Your task to perform on an android device: Add "lenovo thinkpad" to the cart on amazon.com, then select checkout. Image 0: 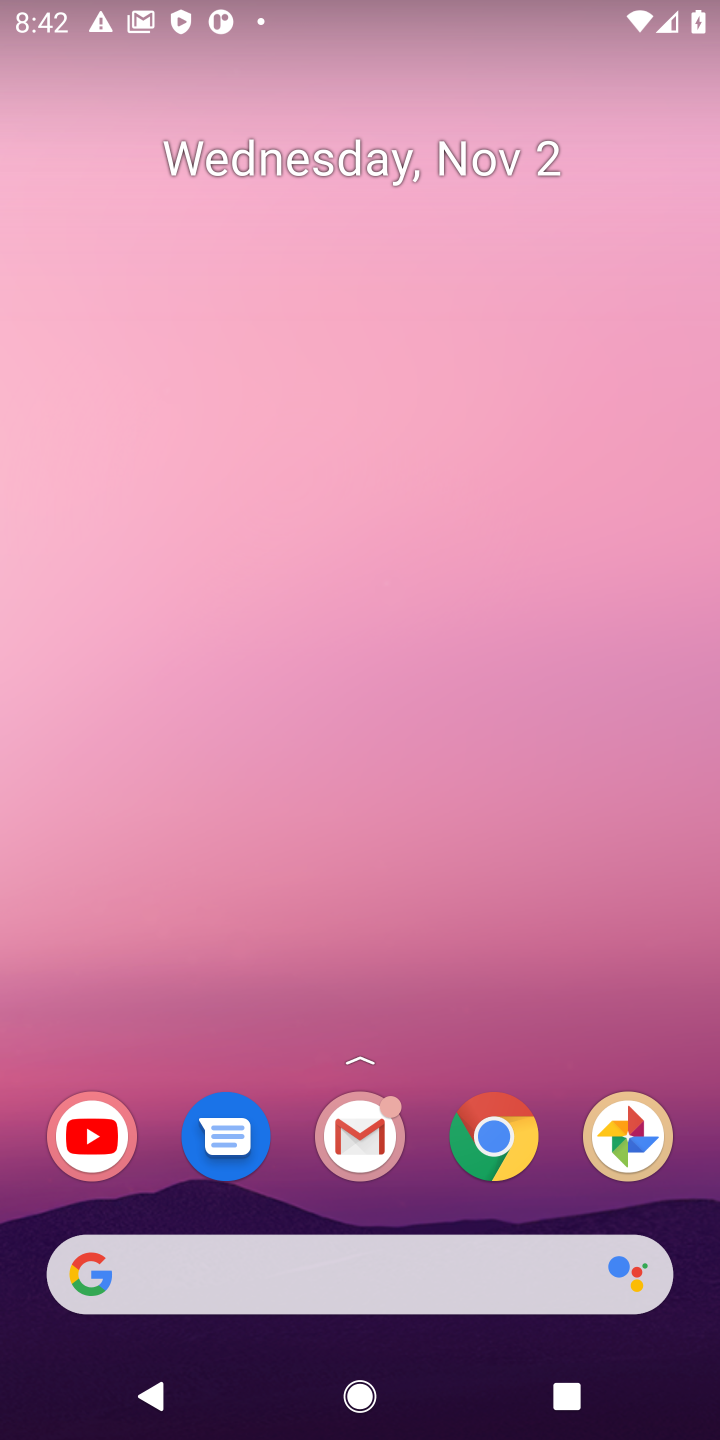
Step 0: drag from (292, 556) to (375, 30)
Your task to perform on an android device: Add "lenovo thinkpad" to the cart on amazon.com, then select checkout. Image 1: 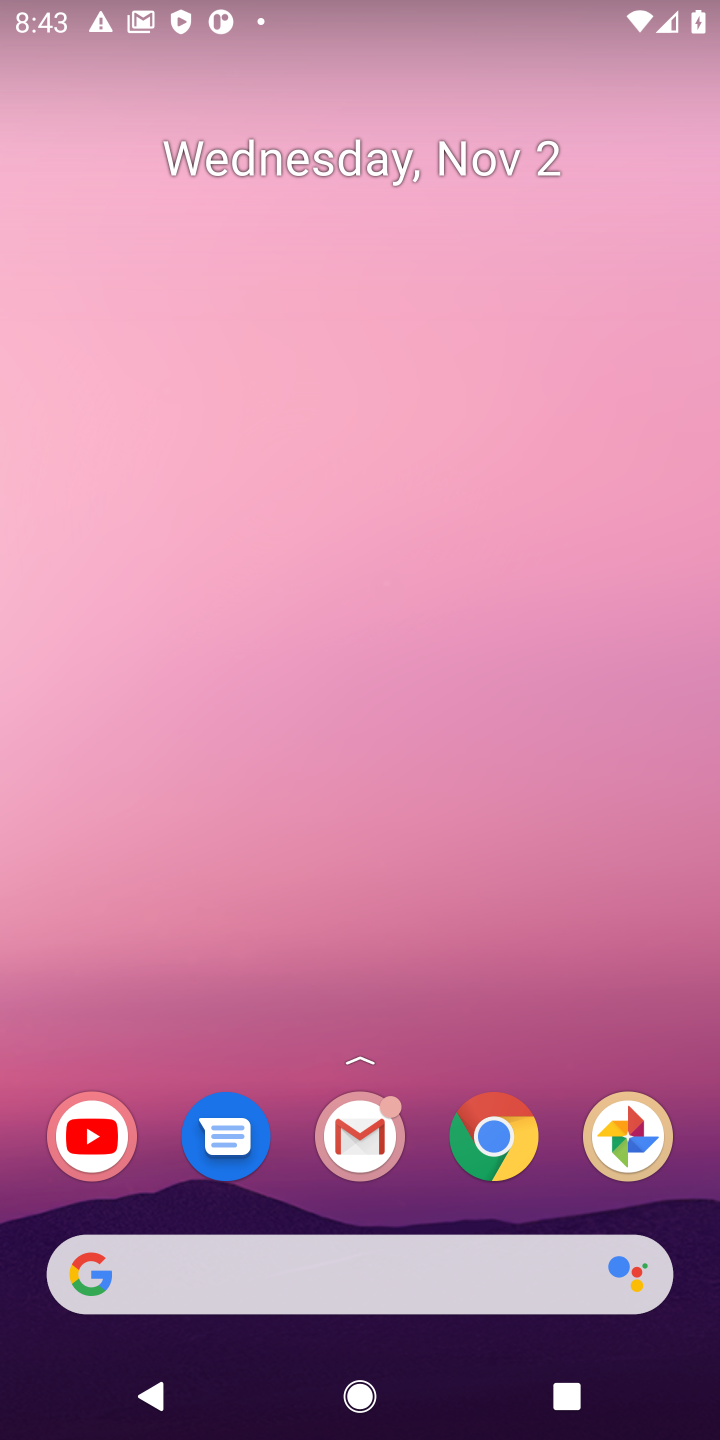
Step 1: drag from (439, 1130) to (420, 278)
Your task to perform on an android device: Add "lenovo thinkpad" to the cart on amazon.com, then select checkout. Image 2: 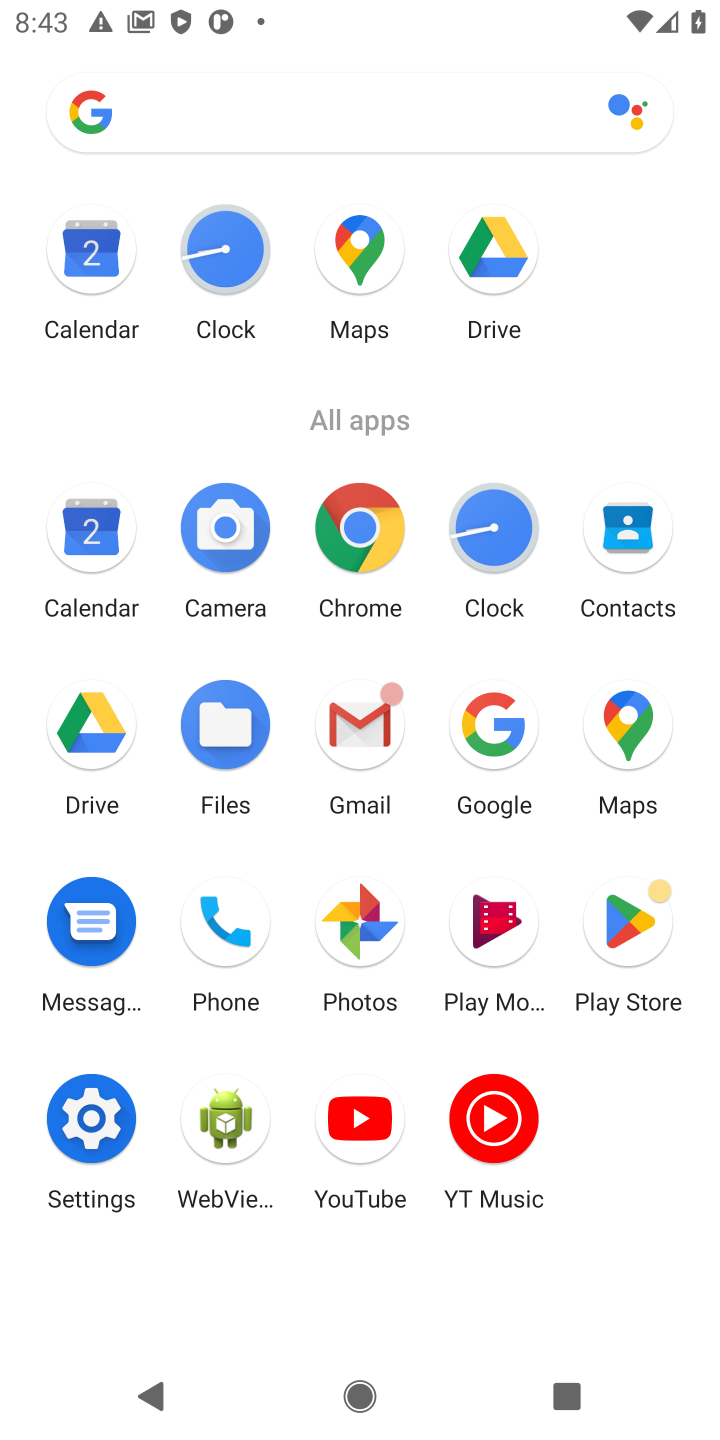
Step 2: click (473, 727)
Your task to perform on an android device: Add "lenovo thinkpad" to the cart on amazon.com, then select checkout. Image 3: 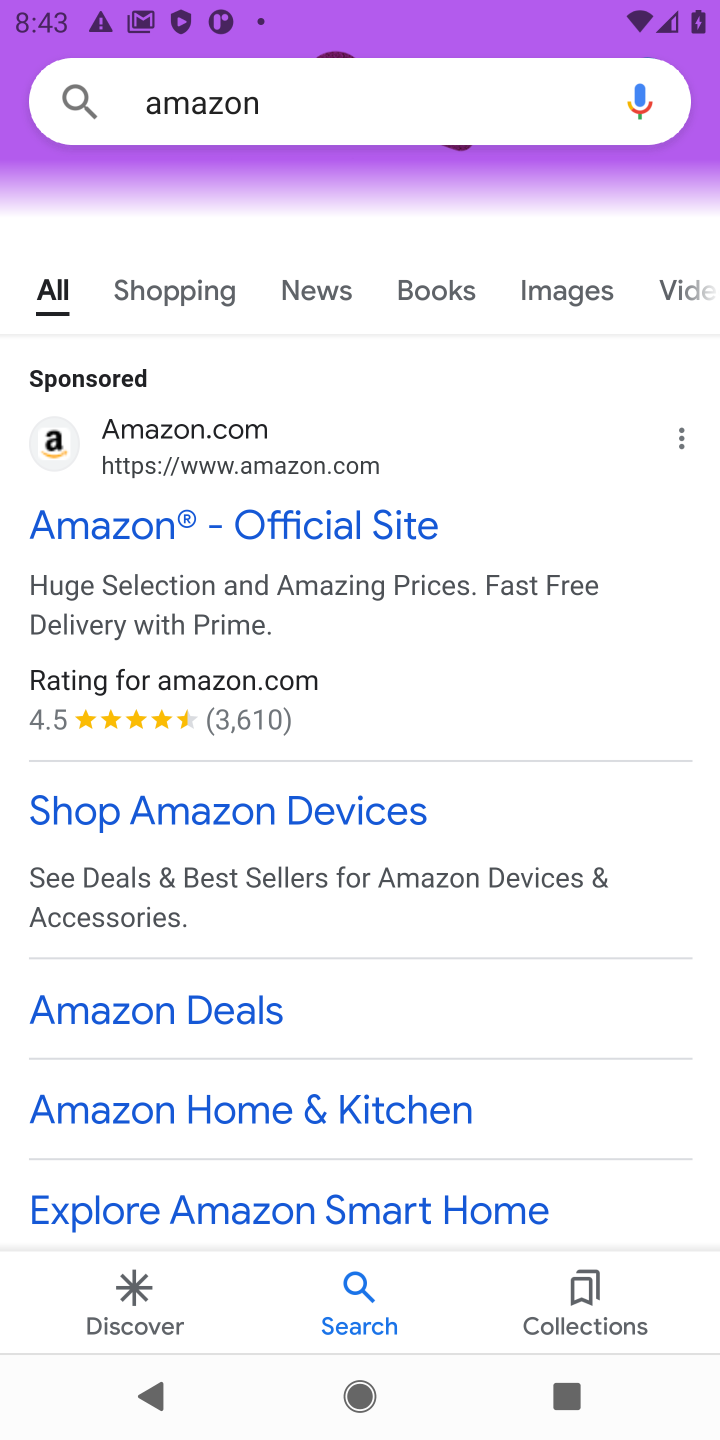
Step 3: click (285, 95)
Your task to perform on an android device: Add "lenovo thinkpad" to the cart on amazon.com, then select checkout. Image 4: 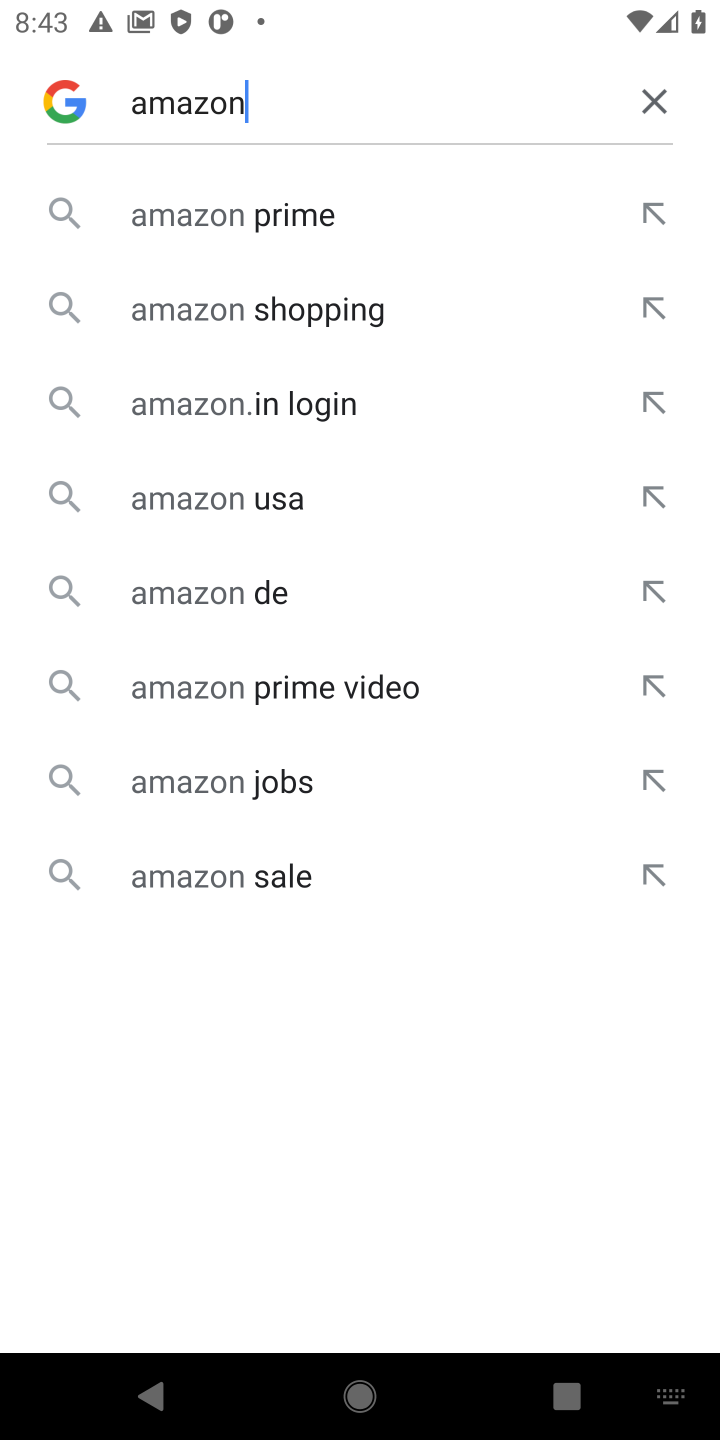
Step 4: click (659, 106)
Your task to perform on an android device: Add "lenovo thinkpad" to the cart on amazon.com, then select checkout. Image 5: 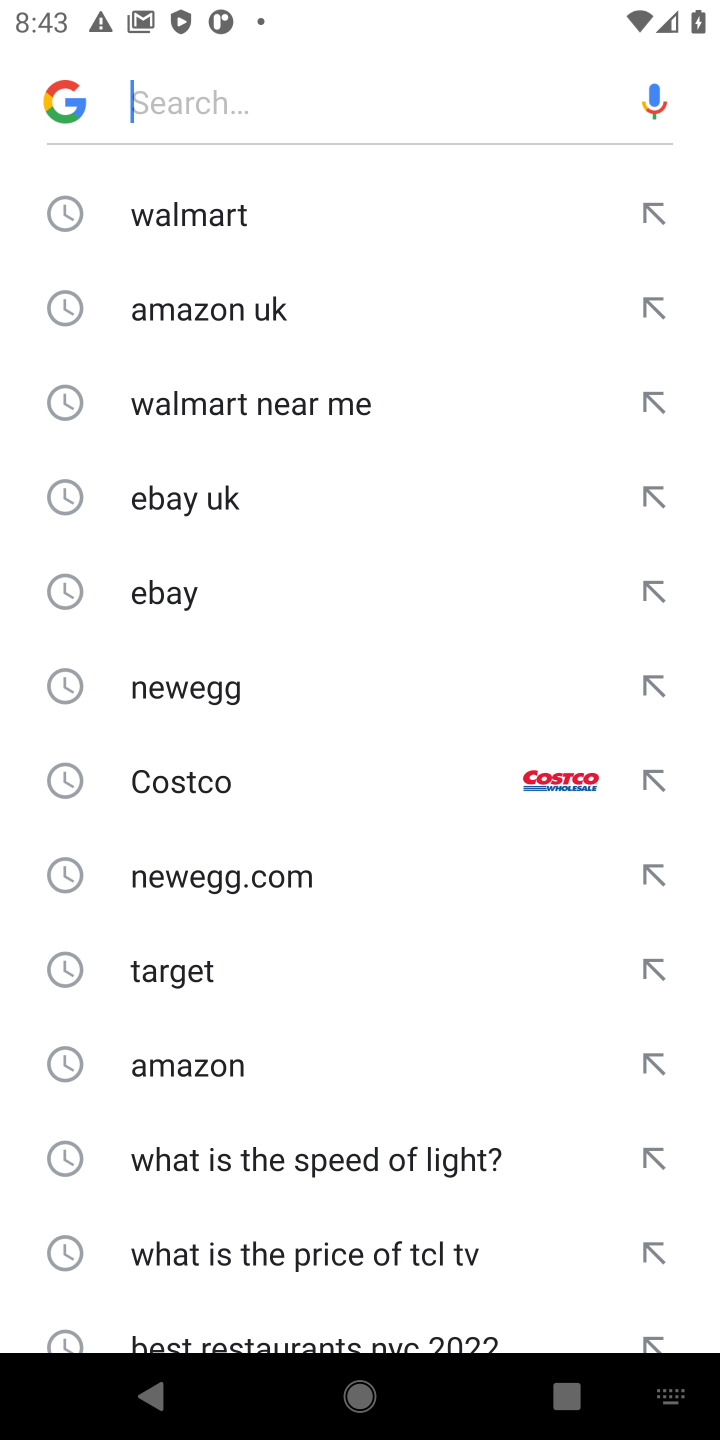
Step 5: click (196, 297)
Your task to perform on an android device: Add "lenovo thinkpad" to the cart on amazon.com, then select checkout. Image 6: 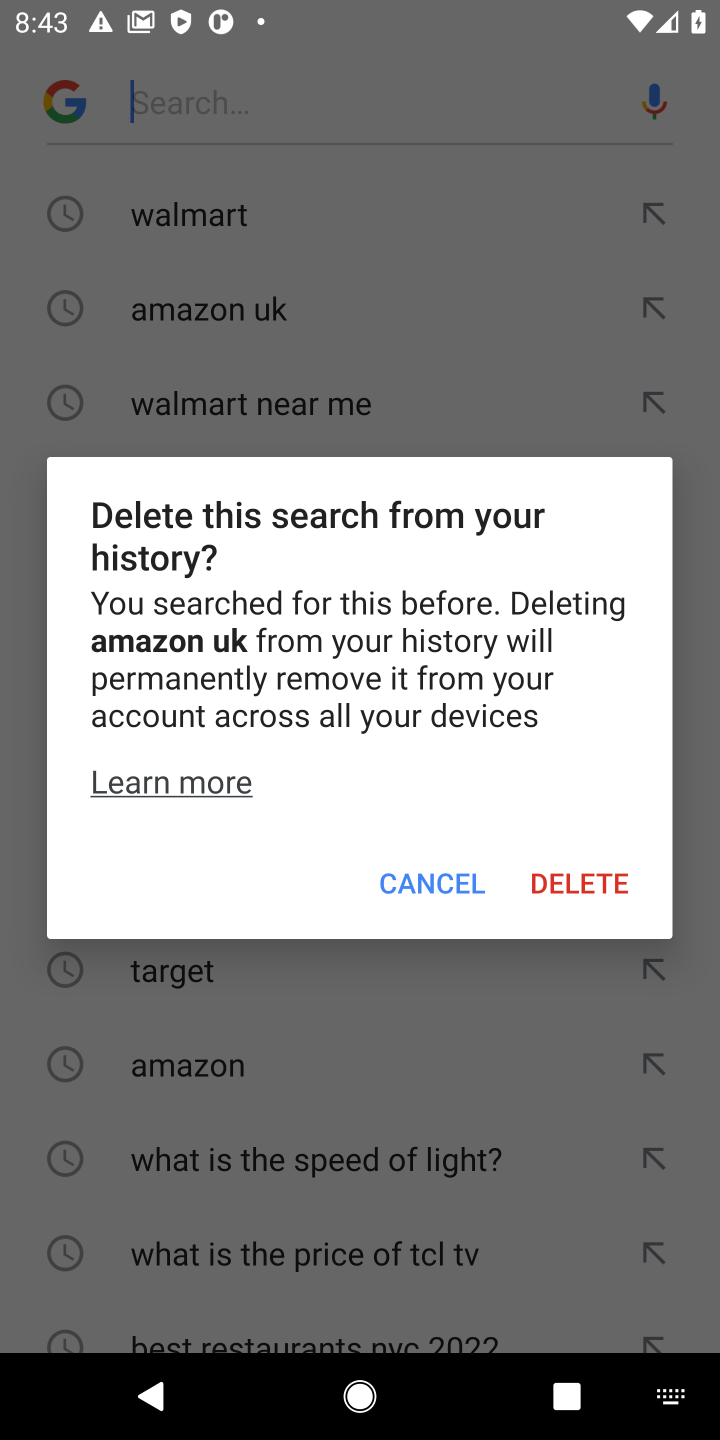
Step 6: click (498, 878)
Your task to perform on an android device: Add "lenovo thinkpad" to the cart on amazon.com, then select checkout. Image 7: 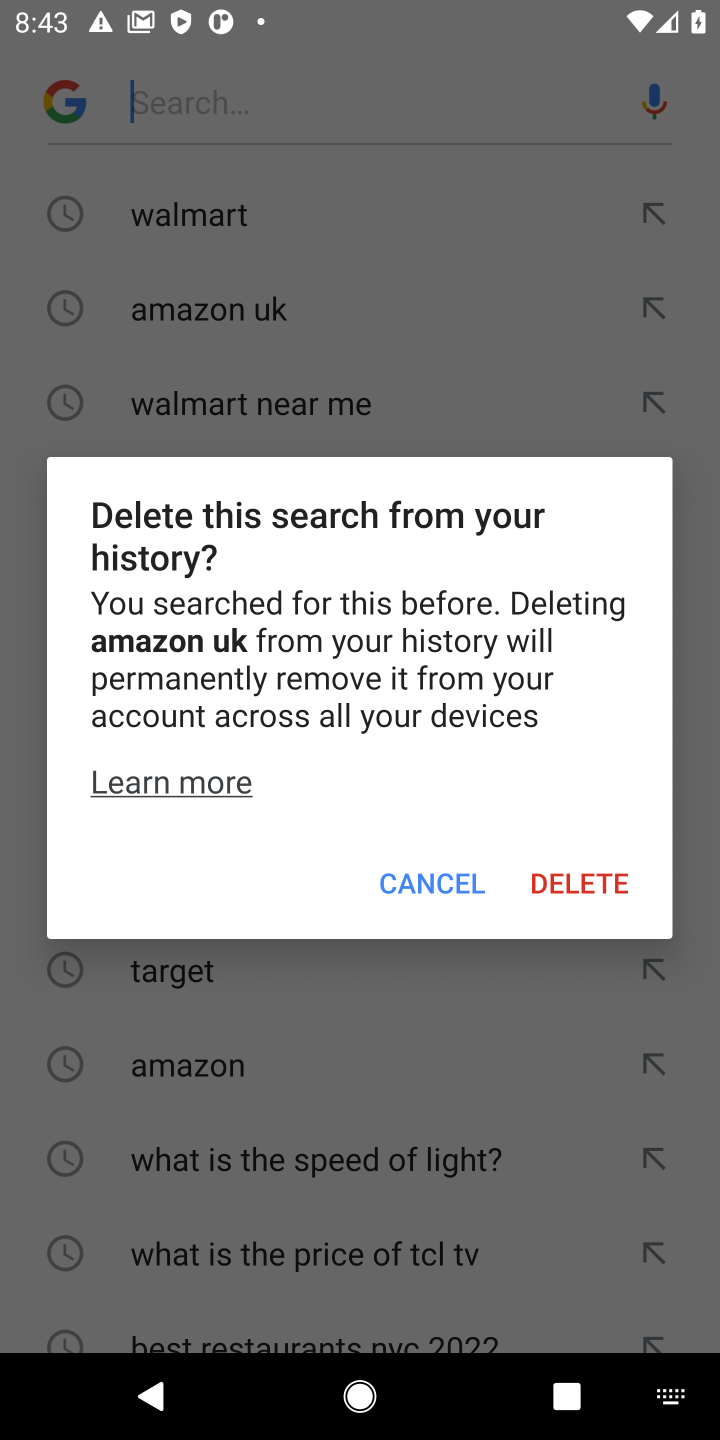
Step 7: click (401, 865)
Your task to perform on an android device: Add "lenovo thinkpad" to the cart on amazon.com, then select checkout. Image 8: 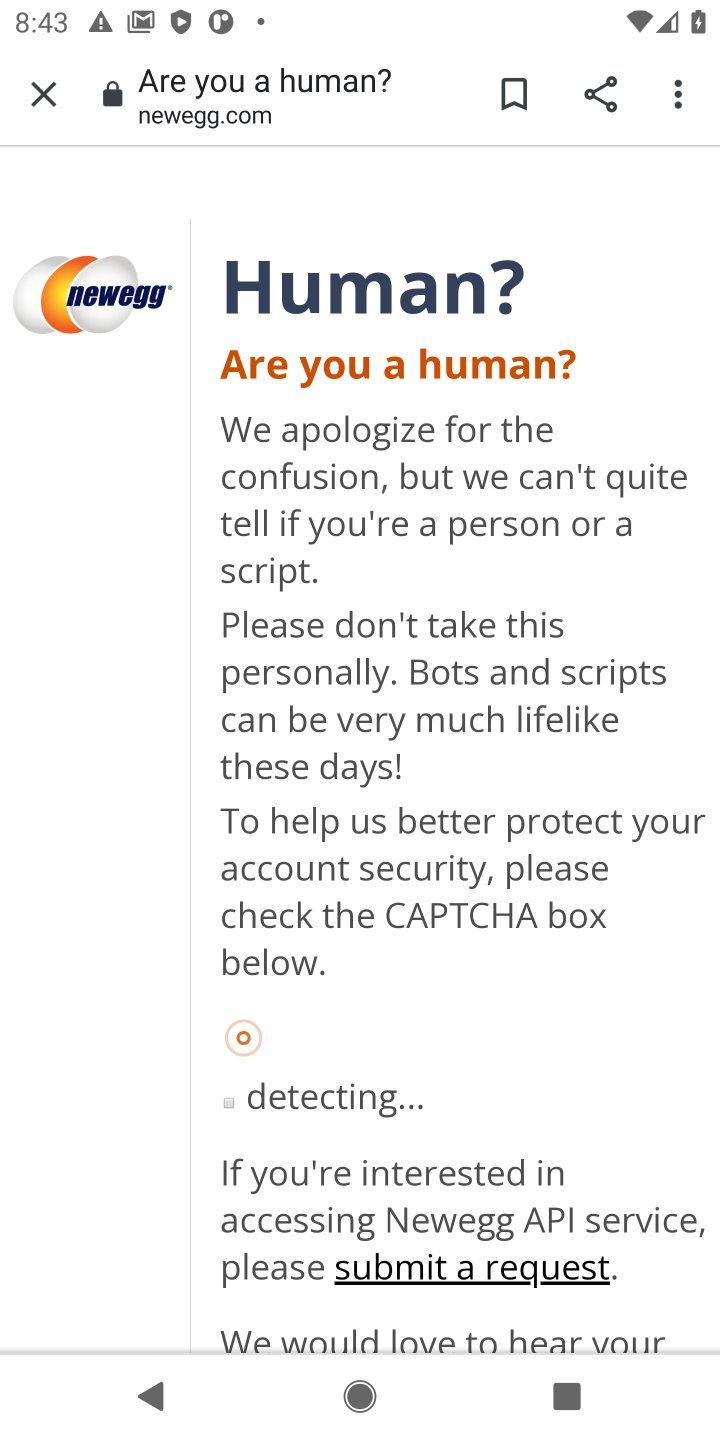
Step 8: press home button
Your task to perform on an android device: Add "lenovo thinkpad" to the cart on amazon.com, then select checkout. Image 9: 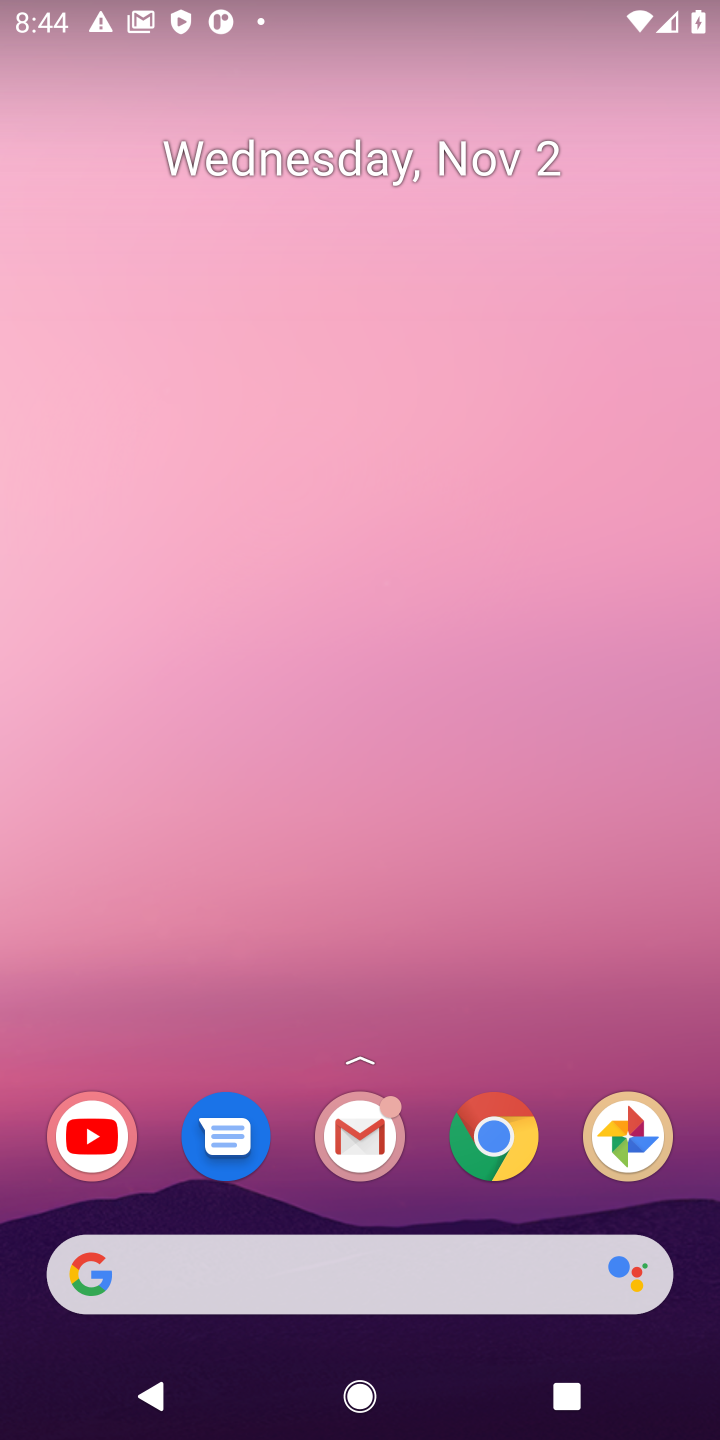
Step 9: drag from (380, 954) to (380, 780)
Your task to perform on an android device: Add "lenovo thinkpad" to the cart on amazon.com, then select checkout. Image 10: 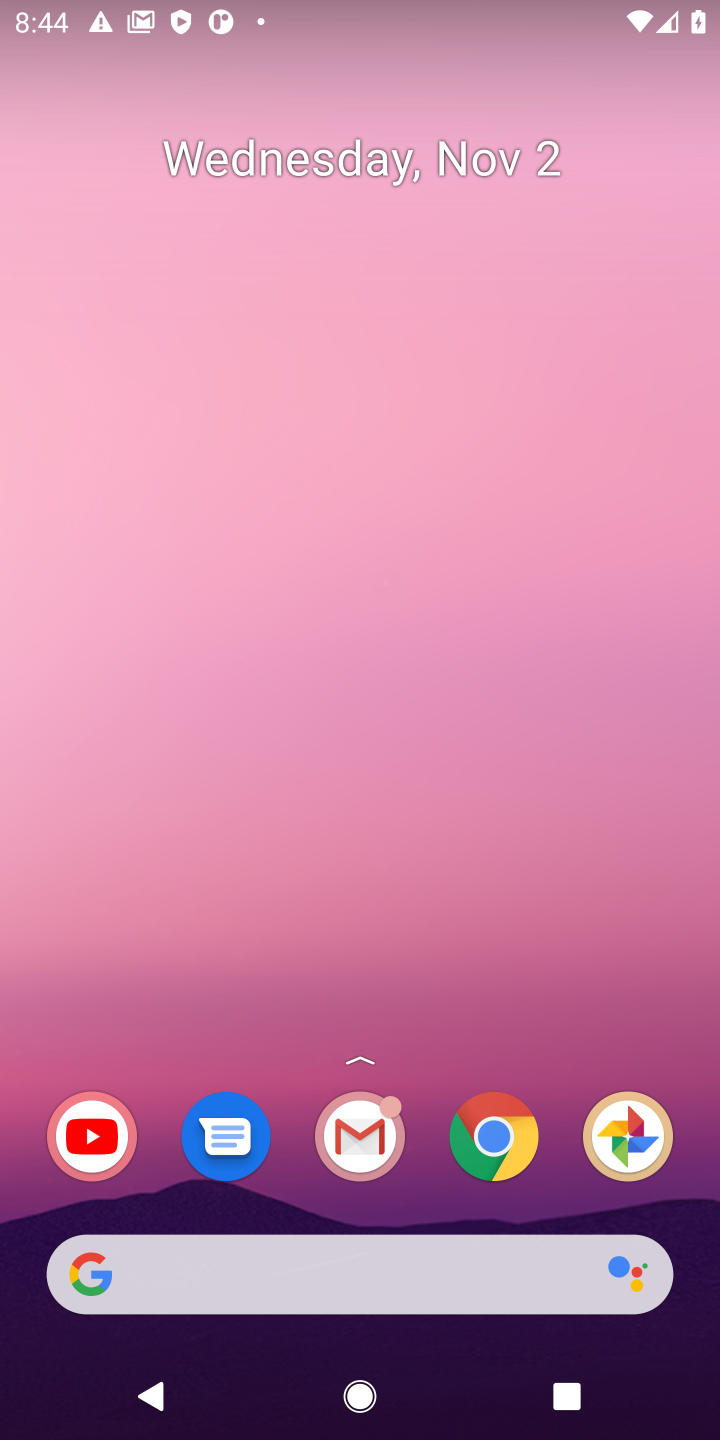
Step 10: drag from (315, 776) to (315, 27)
Your task to perform on an android device: Add "lenovo thinkpad" to the cart on amazon.com, then select checkout. Image 11: 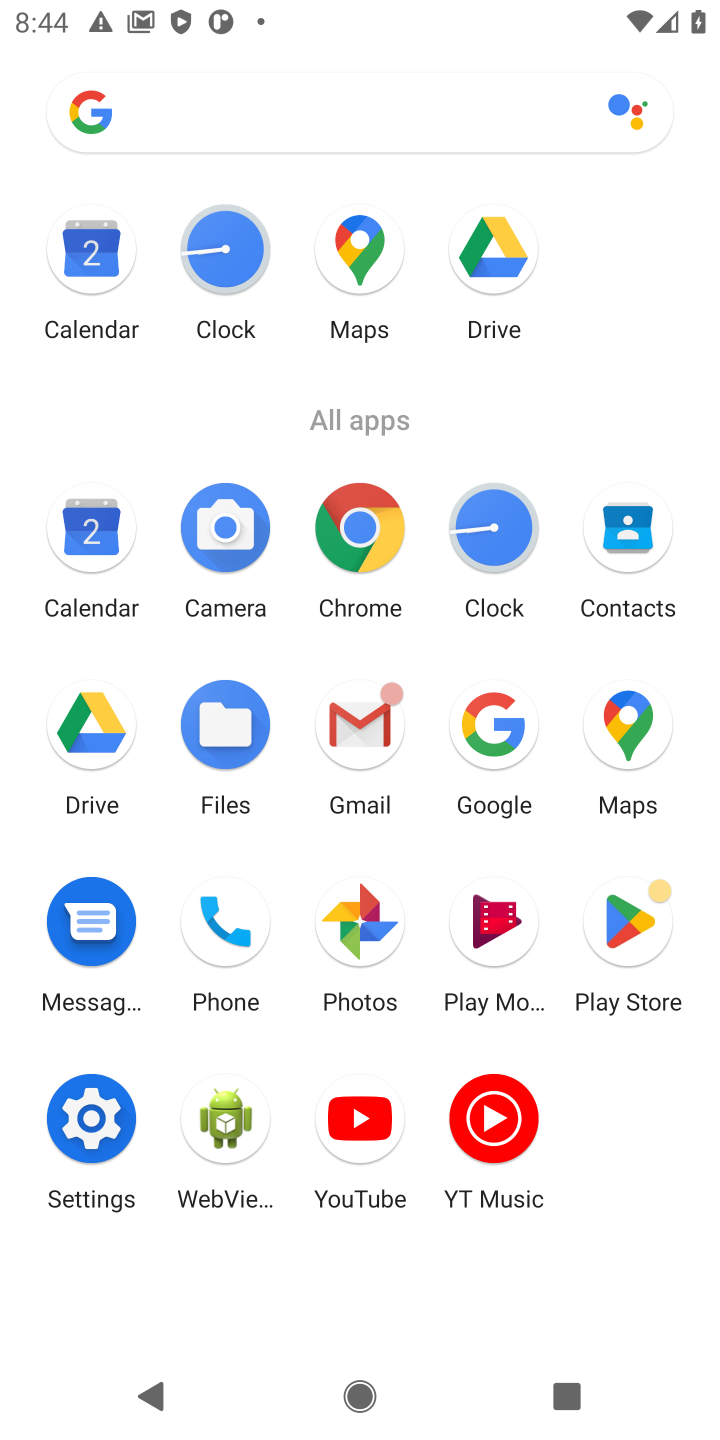
Step 11: click (496, 700)
Your task to perform on an android device: Add "lenovo thinkpad" to the cart on amazon.com, then select checkout. Image 12: 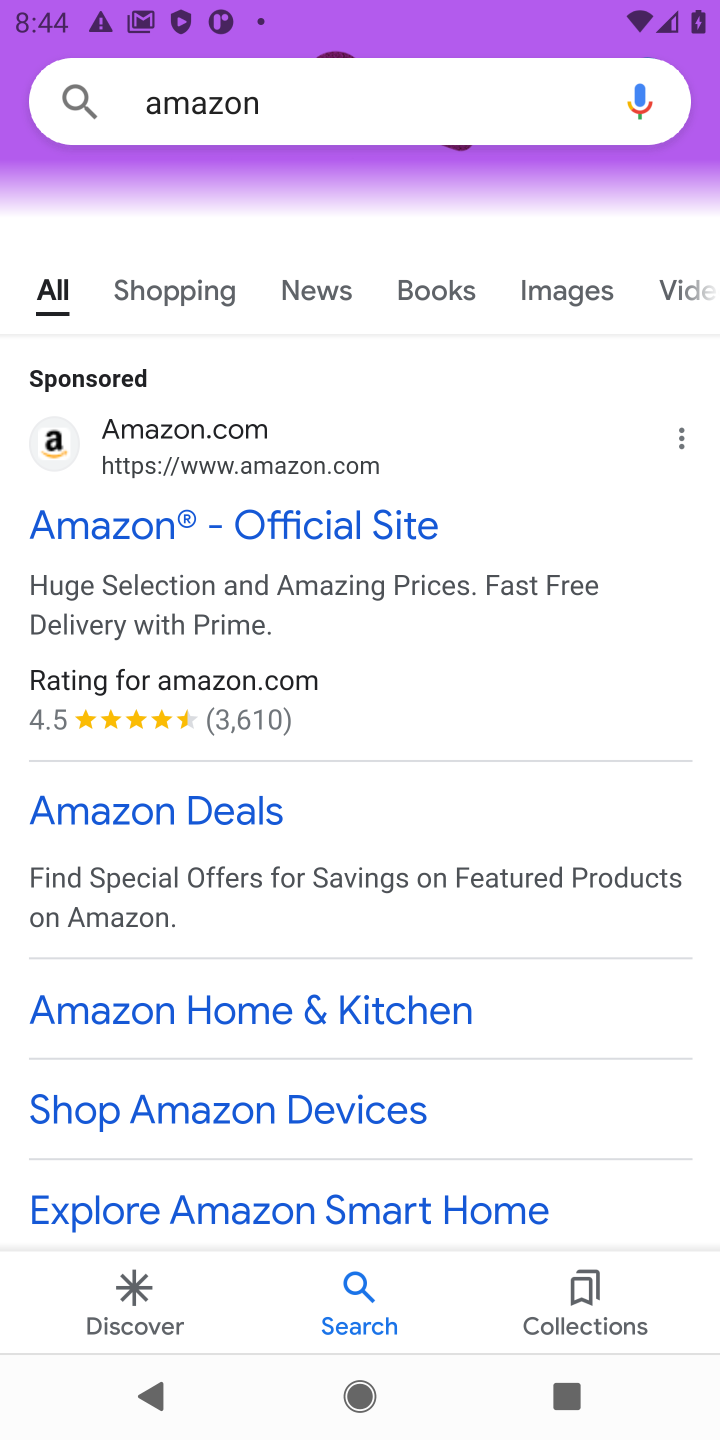
Step 12: click (351, 92)
Your task to perform on an android device: Add "lenovo thinkpad" to the cart on amazon.com, then select checkout. Image 13: 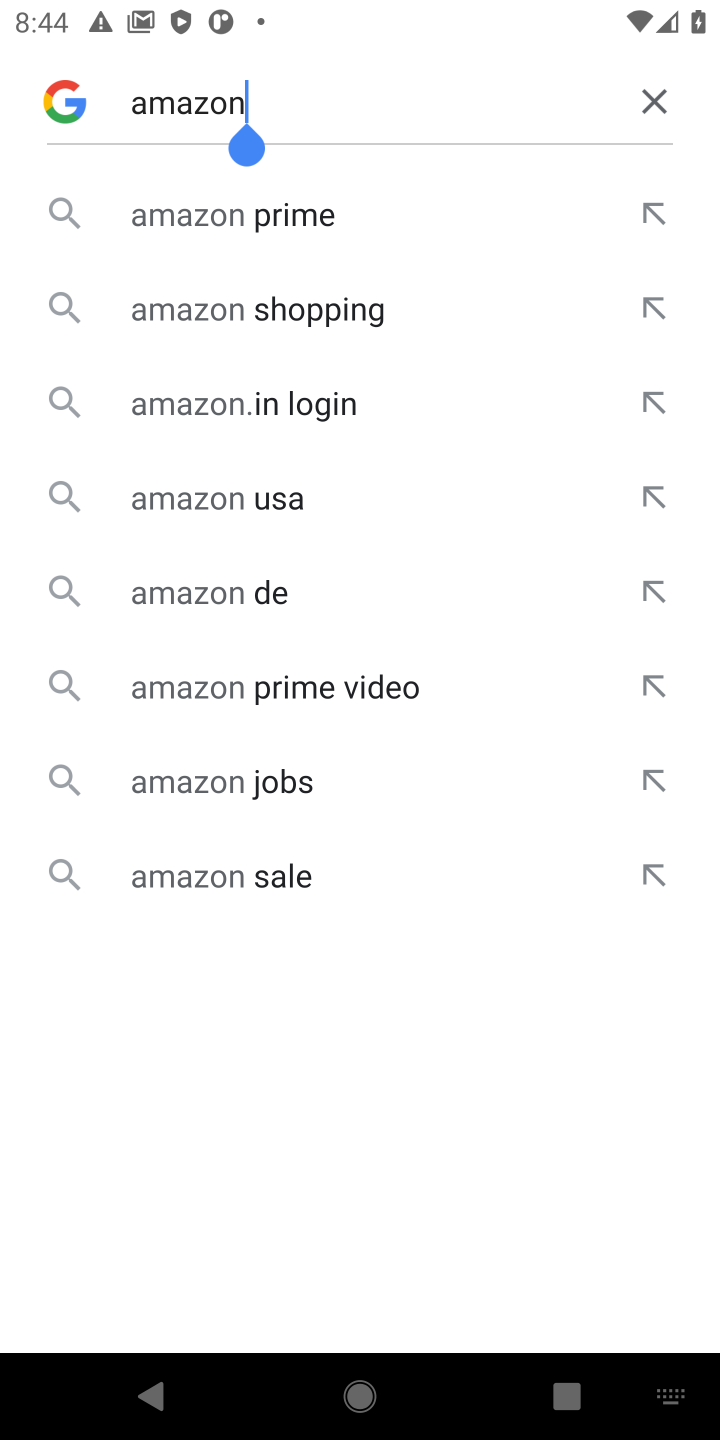
Step 13: click (655, 97)
Your task to perform on an android device: Add "lenovo thinkpad" to the cart on amazon.com, then select checkout. Image 14: 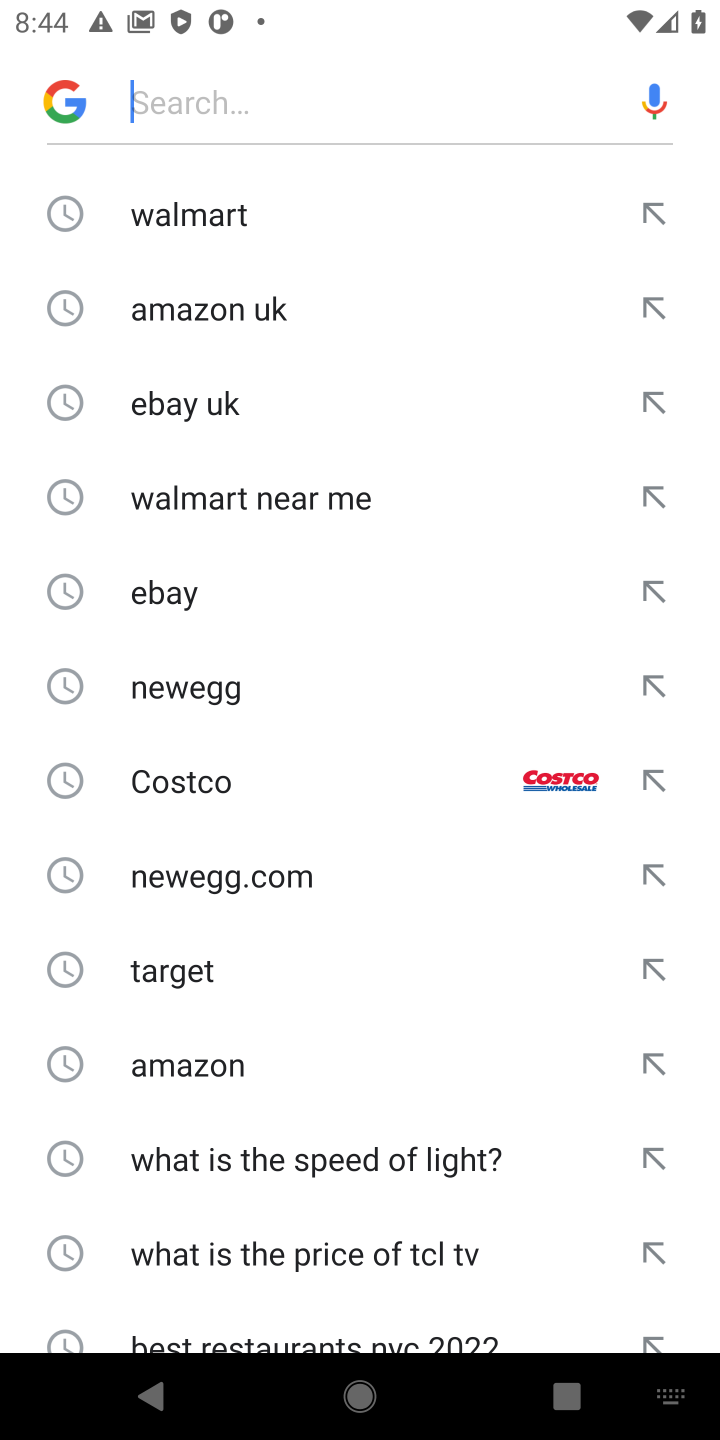
Step 14: click (328, 85)
Your task to perform on an android device: Add "lenovo thinkpad" to the cart on amazon.com, then select checkout. Image 15: 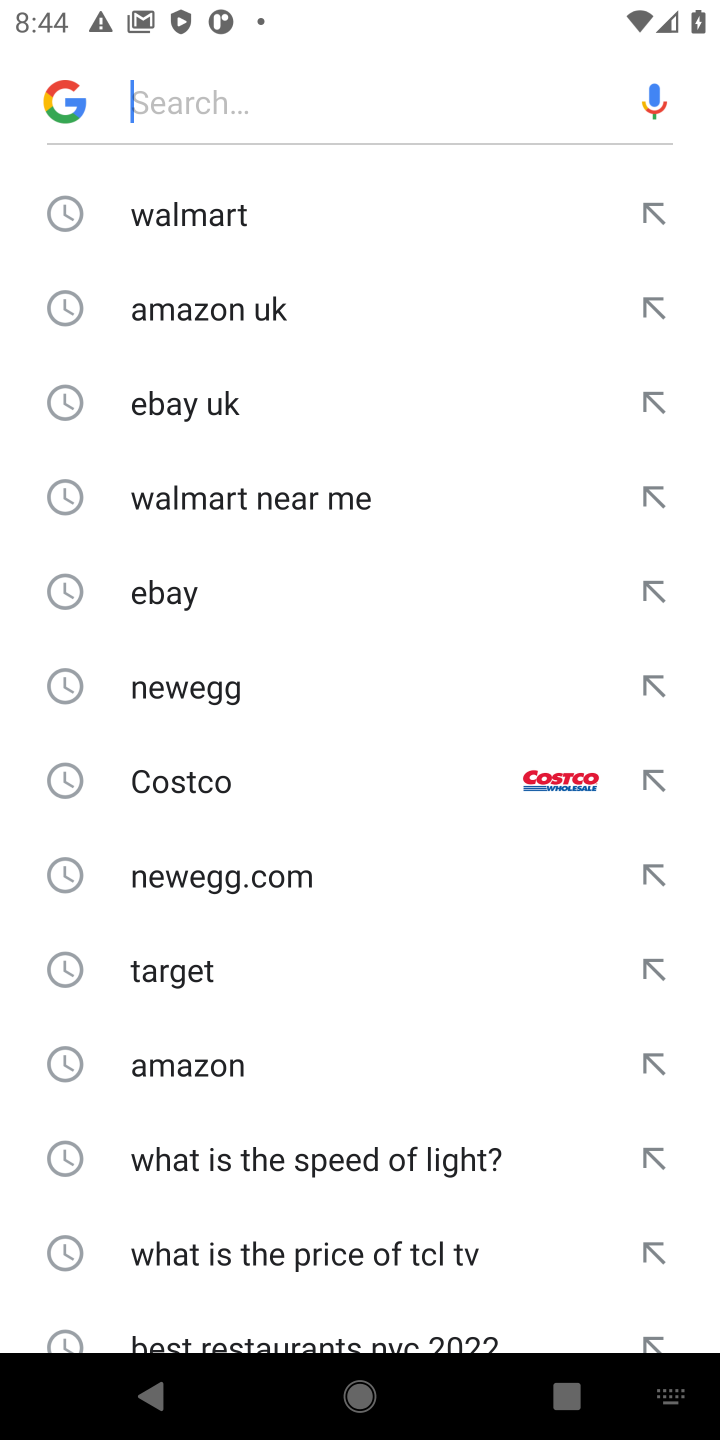
Step 15: type "amazon.com "
Your task to perform on an android device: Add "lenovo thinkpad" to the cart on amazon.com, then select checkout. Image 16: 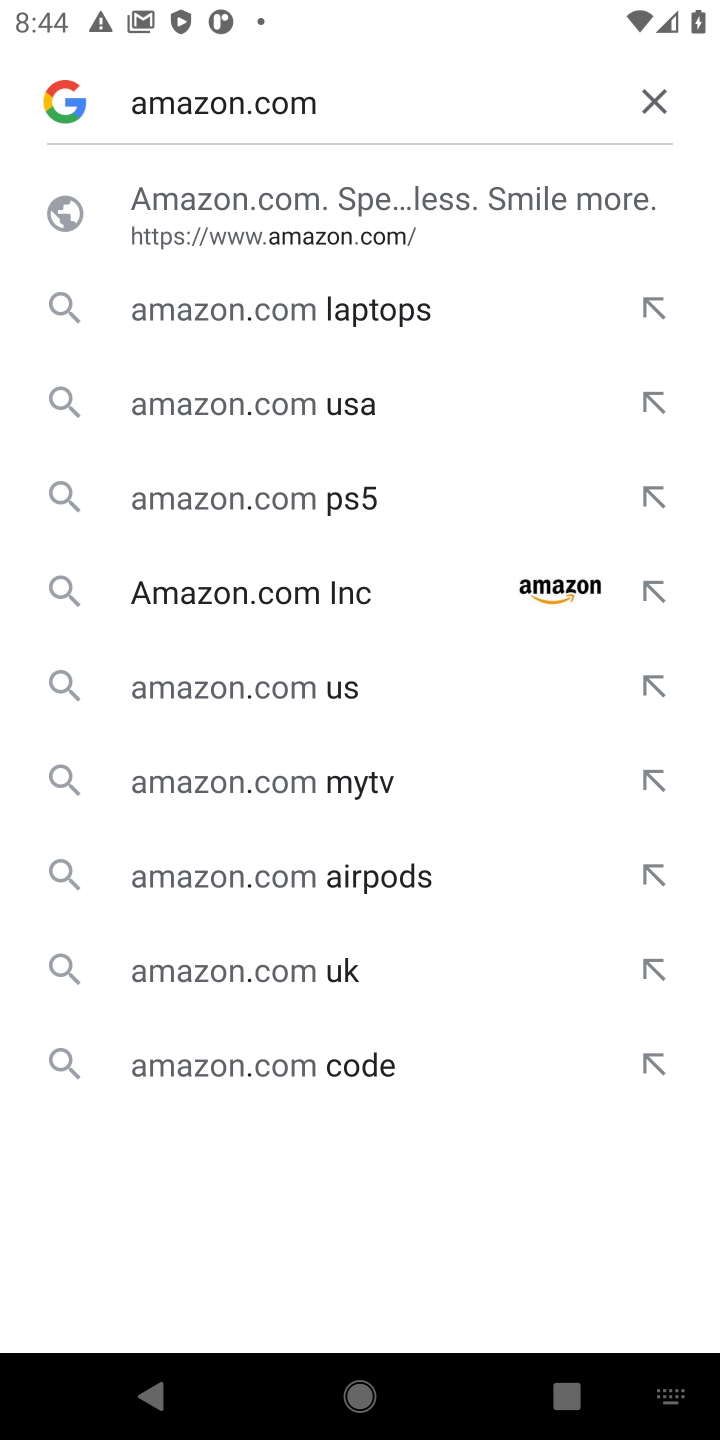
Step 16: click (188, 209)
Your task to perform on an android device: Add "lenovo thinkpad" to the cart on amazon.com, then select checkout. Image 17: 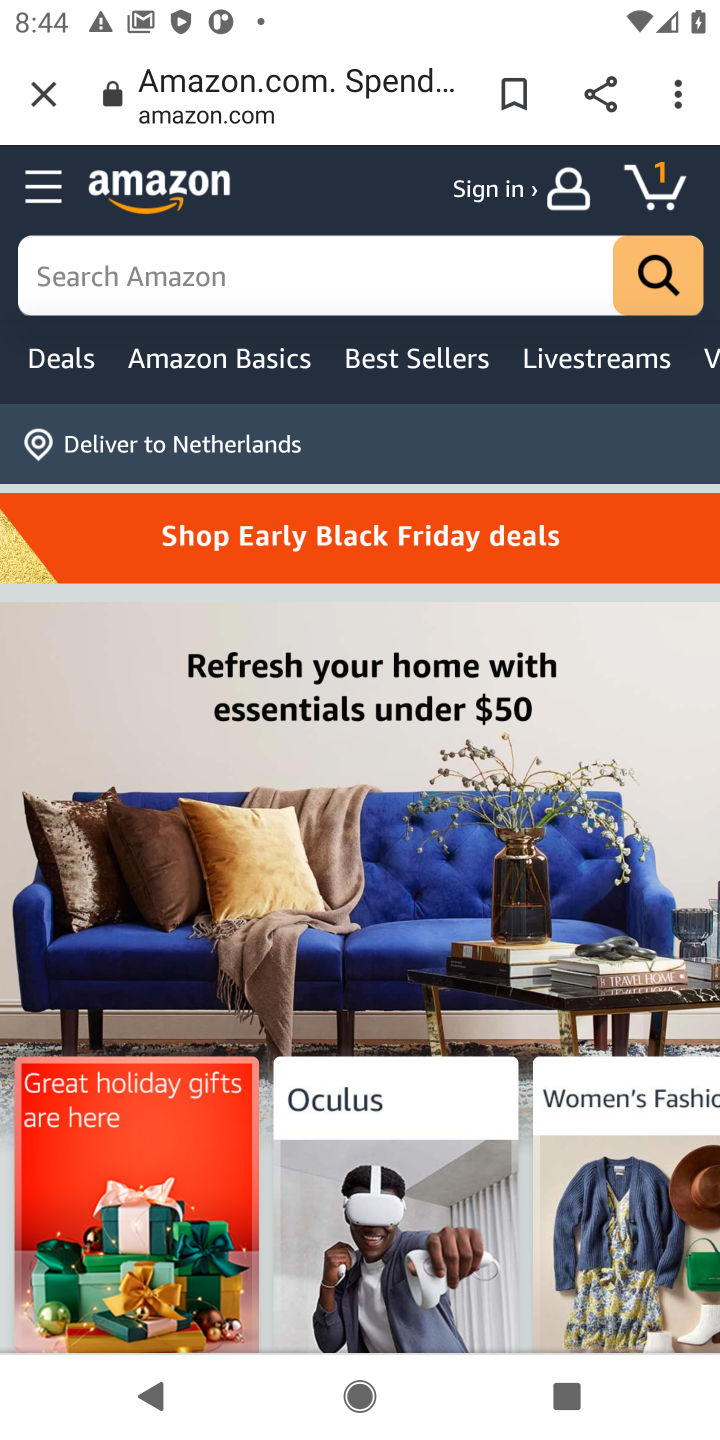
Step 17: click (224, 264)
Your task to perform on an android device: Add "lenovo thinkpad" to the cart on amazon.com, then select checkout. Image 18: 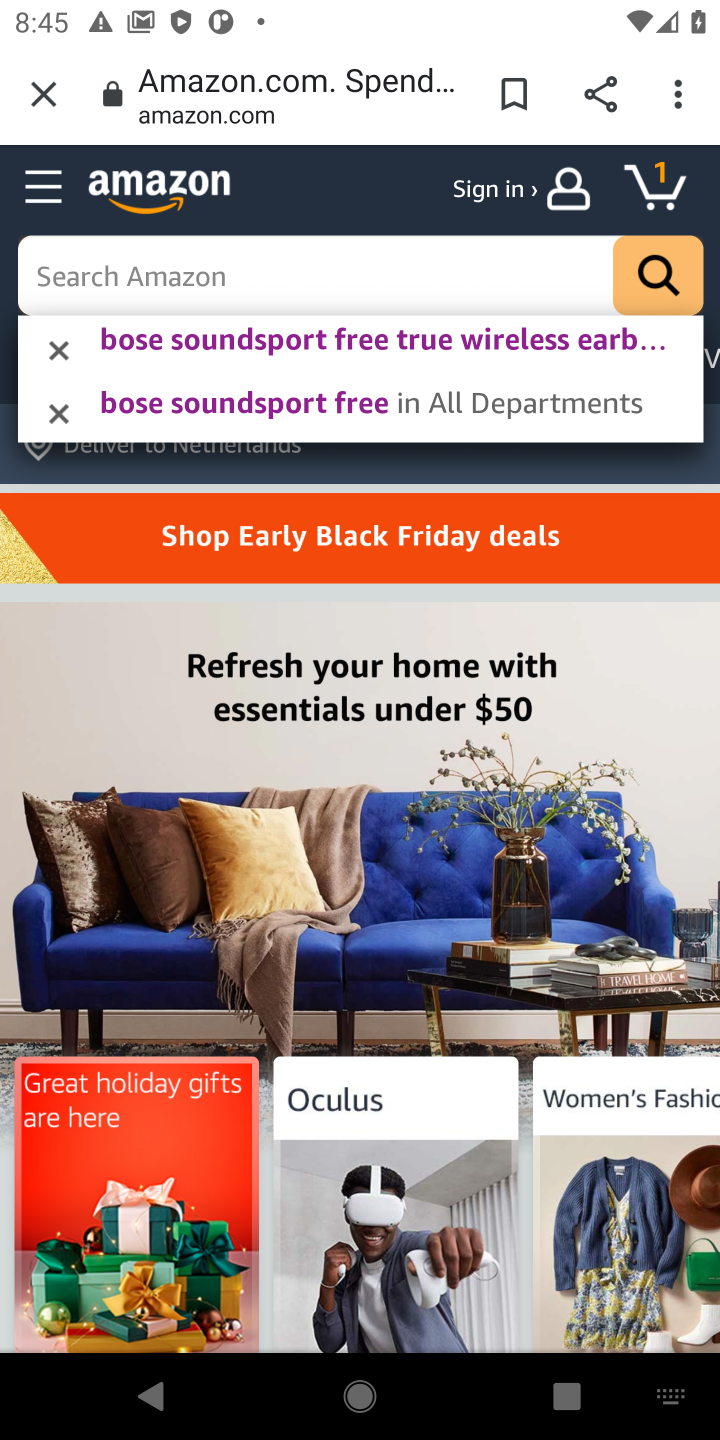
Step 18: type "lenovo thinkpad "
Your task to perform on an android device: Add "lenovo thinkpad" to the cart on amazon.com, then select checkout. Image 19: 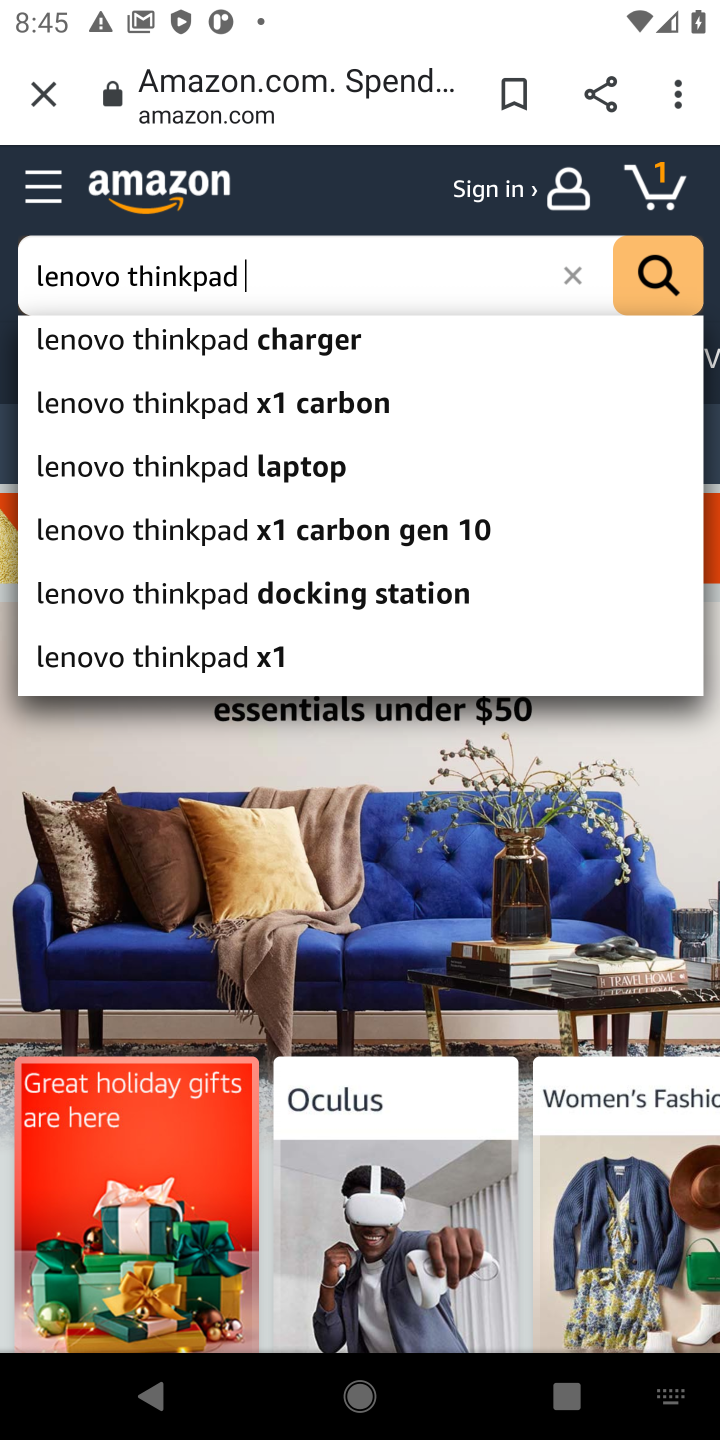
Step 19: click (276, 466)
Your task to perform on an android device: Add "lenovo thinkpad" to the cart on amazon.com, then select checkout. Image 20: 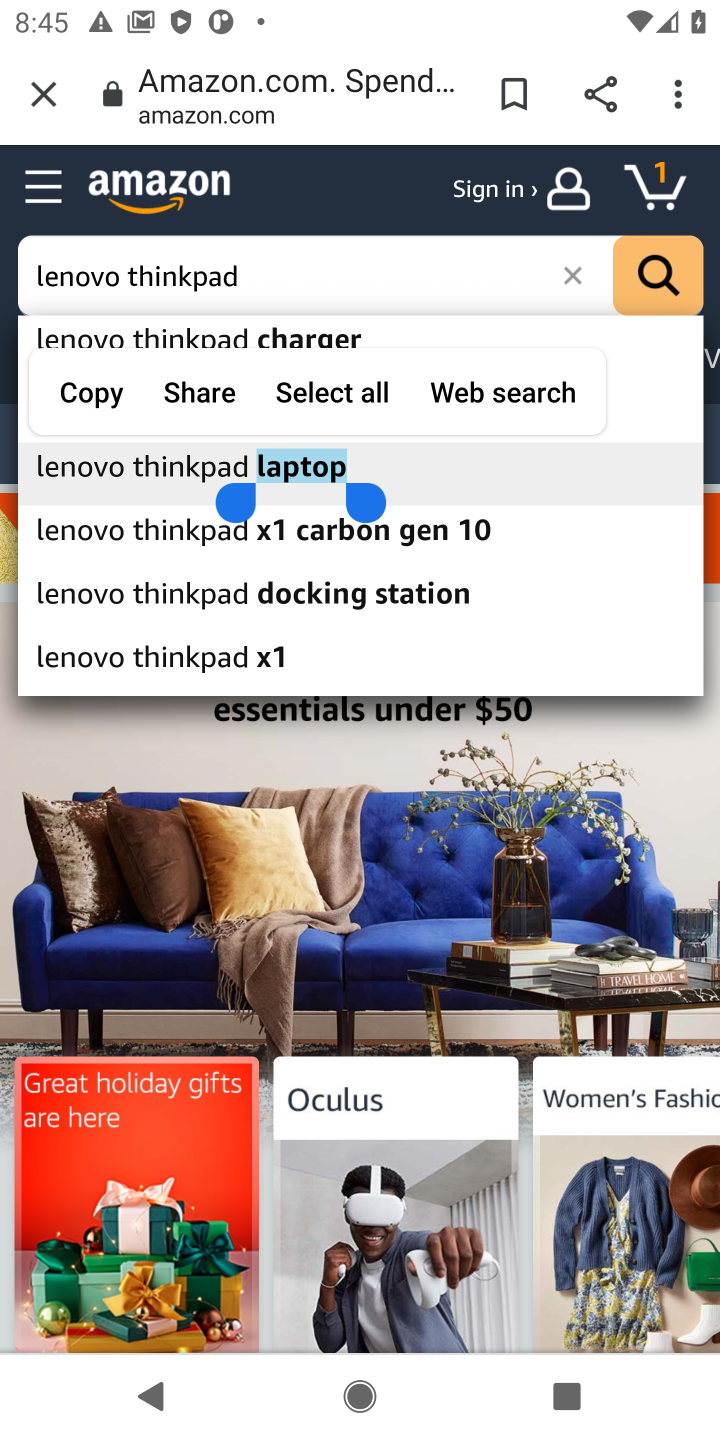
Step 20: click (144, 466)
Your task to perform on an android device: Add "lenovo thinkpad" to the cart on amazon.com, then select checkout. Image 21: 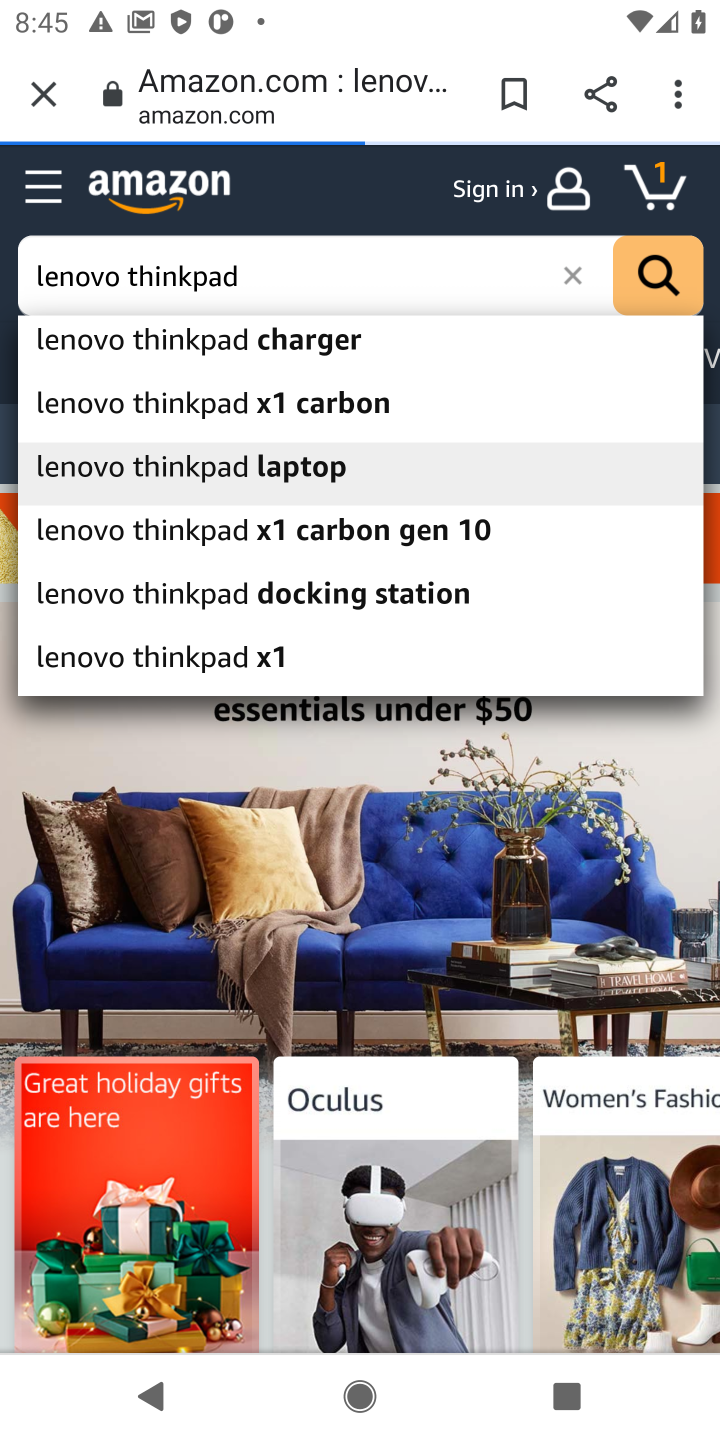
Step 21: click (144, 466)
Your task to perform on an android device: Add "lenovo thinkpad" to the cart on amazon.com, then select checkout. Image 22: 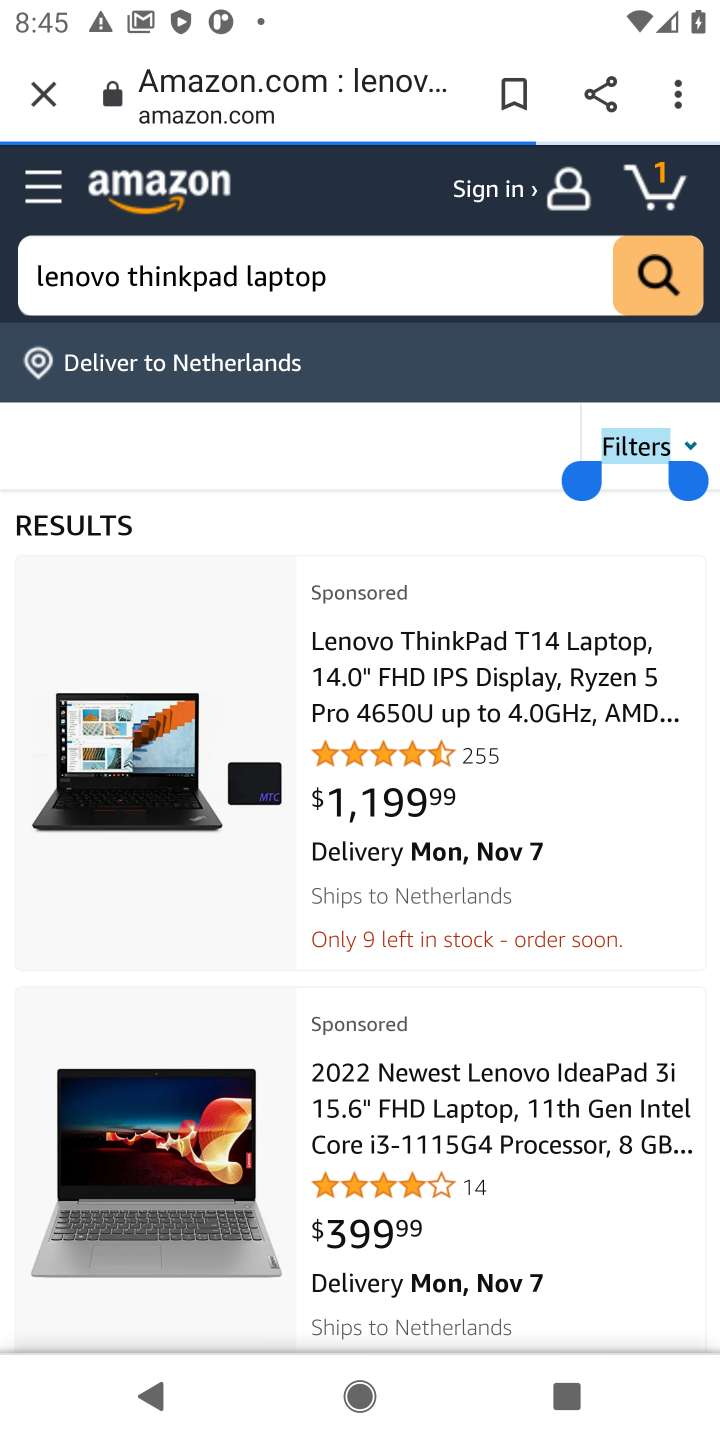
Step 22: click (507, 711)
Your task to perform on an android device: Add "lenovo thinkpad" to the cart on amazon.com, then select checkout. Image 23: 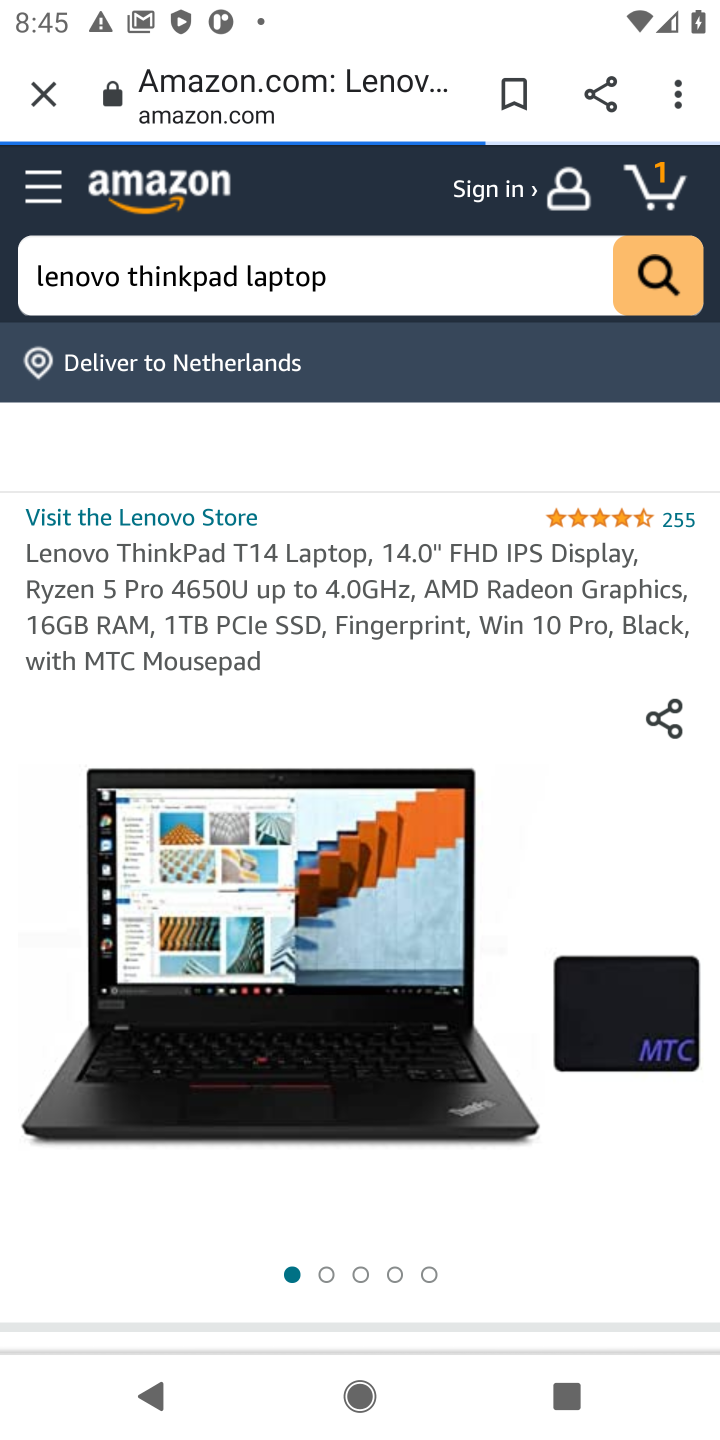
Step 23: drag from (468, 888) to (464, 468)
Your task to perform on an android device: Add "lenovo thinkpad" to the cart on amazon.com, then select checkout. Image 24: 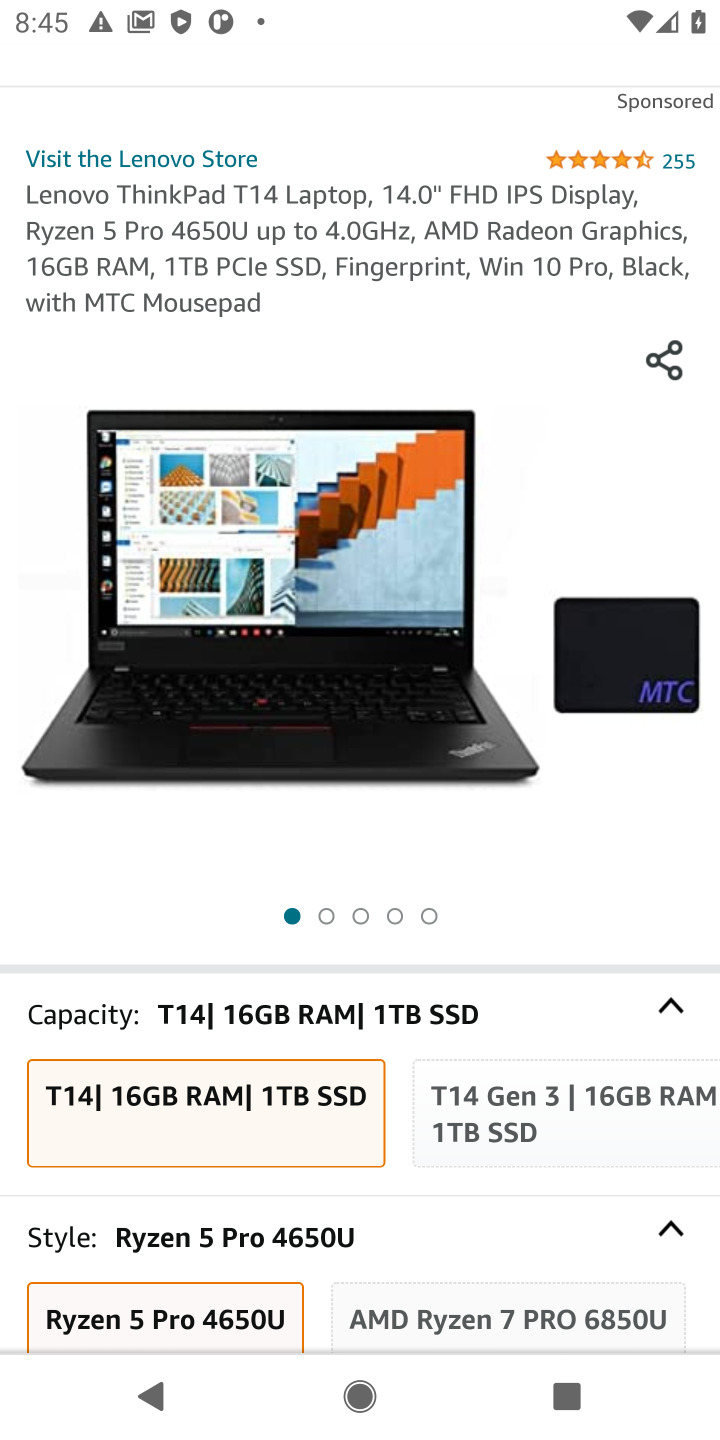
Step 24: drag from (342, 1164) to (439, 298)
Your task to perform on an android device: Add "lenovo thinkpad" to the cart on amazon.com, then select checkout. Image 25: 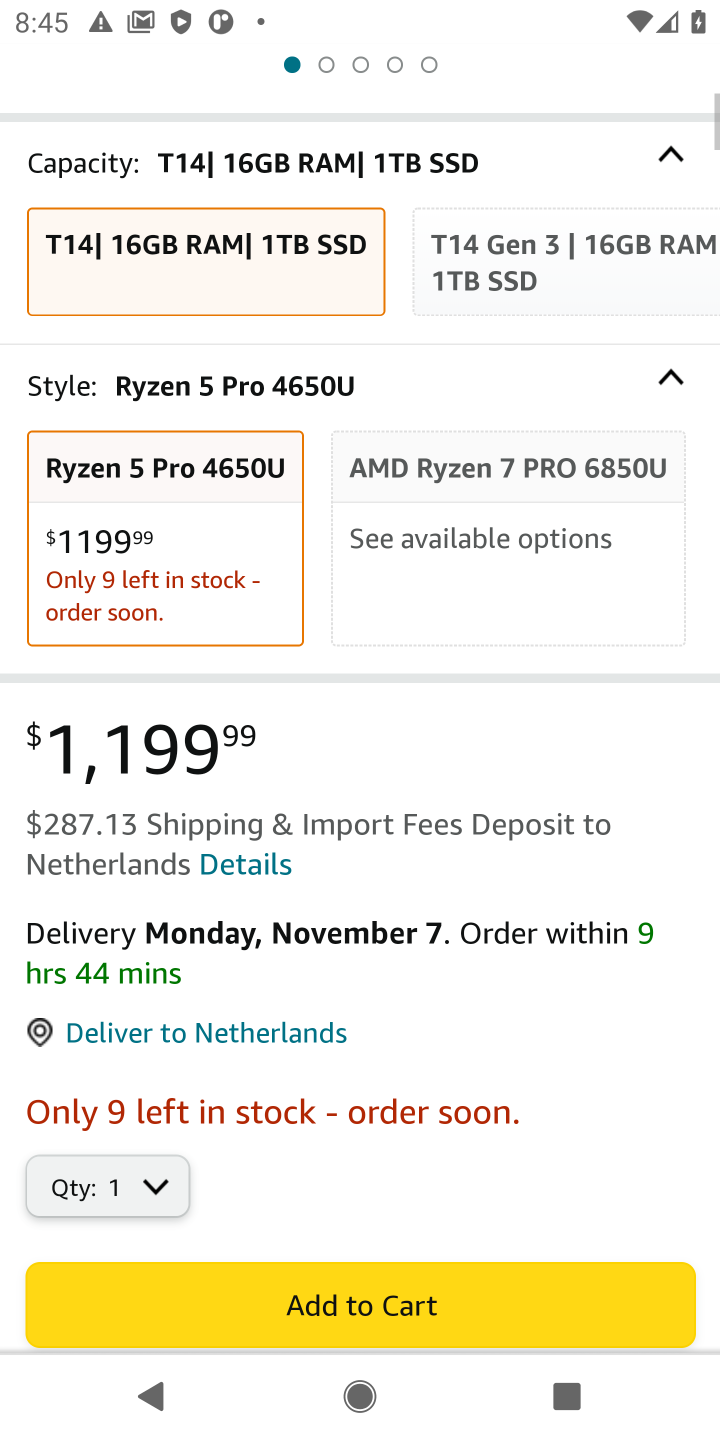
Step 25: drag from (318, 1229) to (347, 805)
Your task to perform on an android device: Add "lenovo thinkpad" to the cart on amazon.com, then select checkout. Image 26: 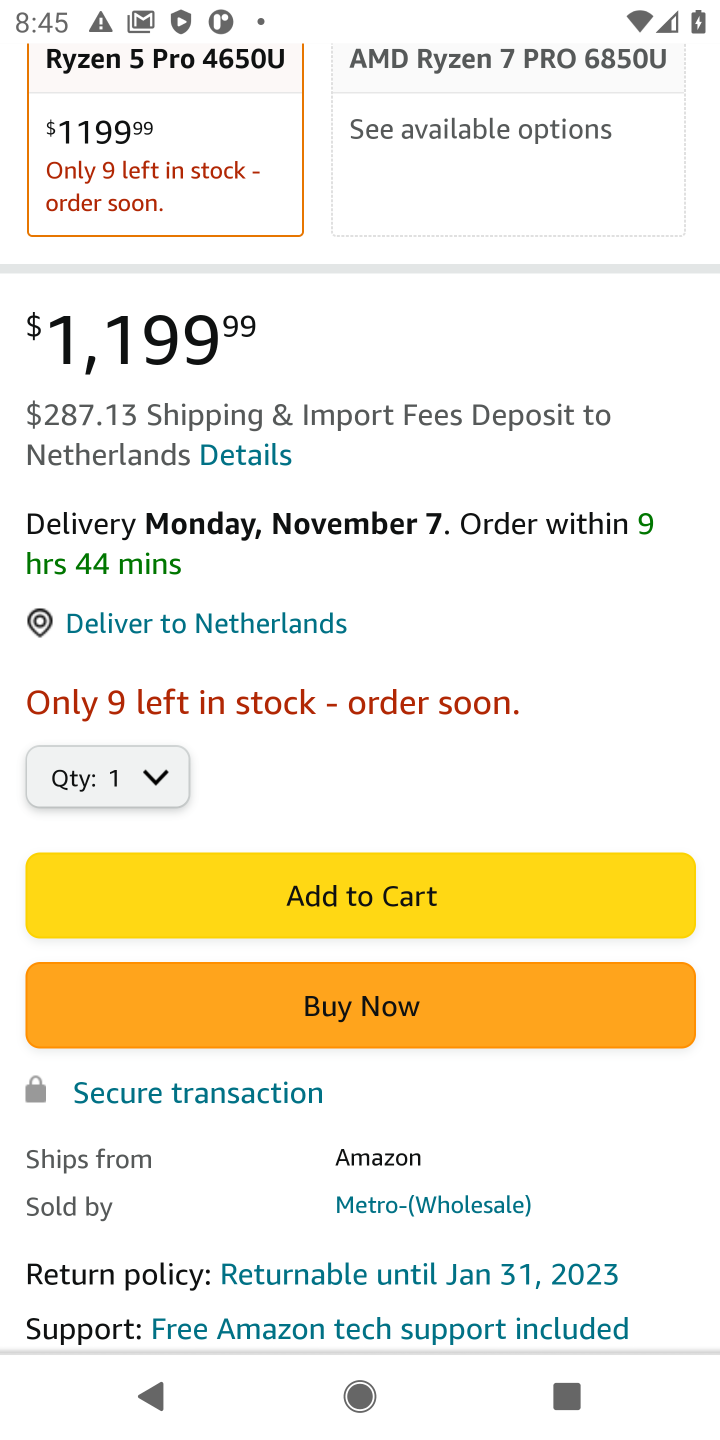
Step 26: click (395, 881)
Your task to perform on an android device: Add "lenovo thinkpad" to the cart on amazon.com, then select checkout. Image 27: 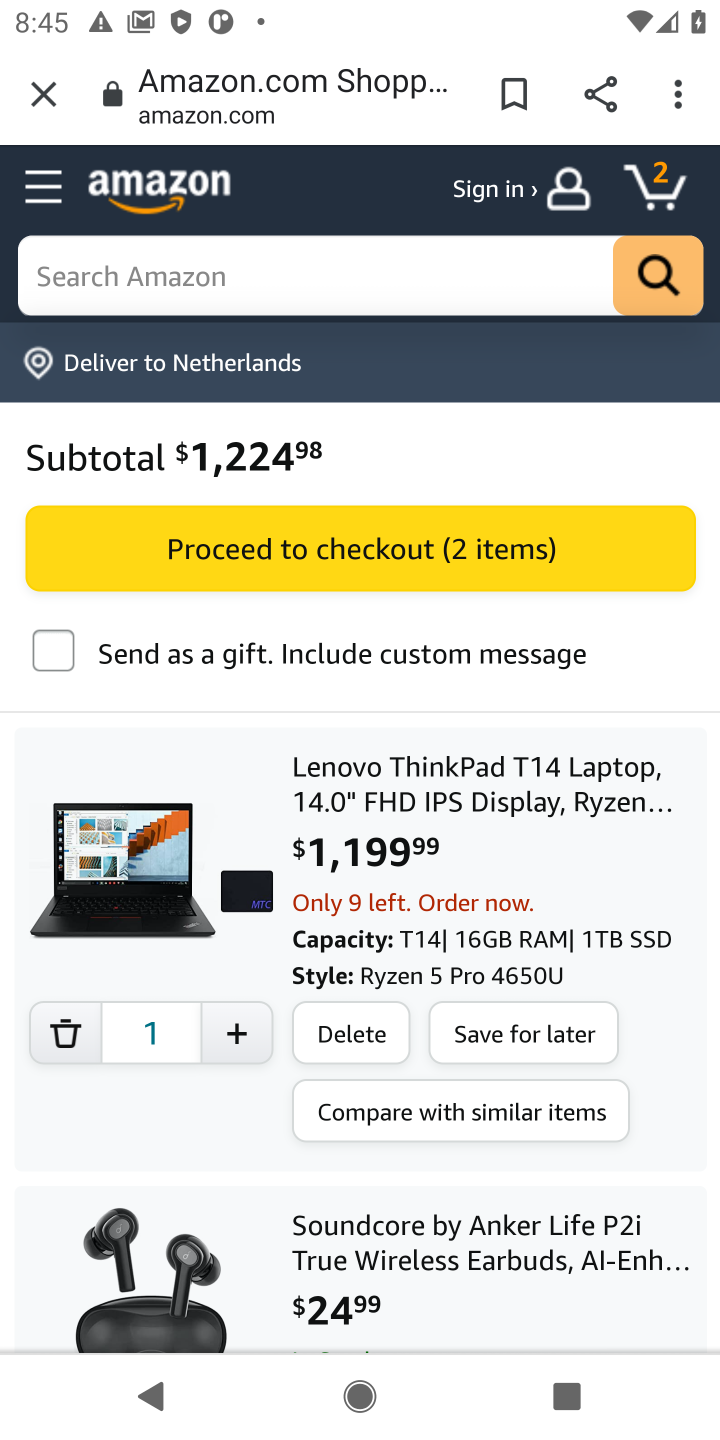
Step 27: task complete